Your task to perform on an android device: open chrome and create a bookmark for the current page Image 0: 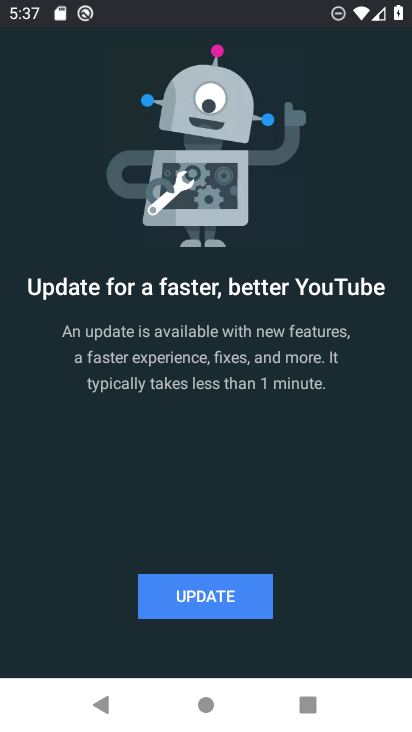
Step 0: press home button
Your task to perform on an android device: open chrome and create a bookmark for the current page Image 1: 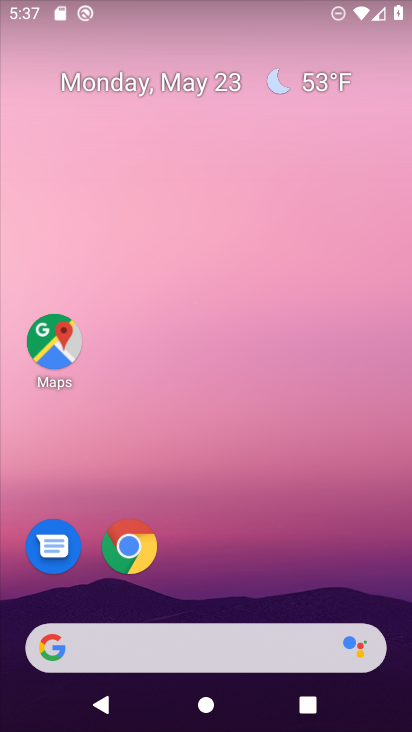
Step 1: click (122, 548)
Your task to perform on an android device: open chrome and create a bookmark for the current page Image 2: 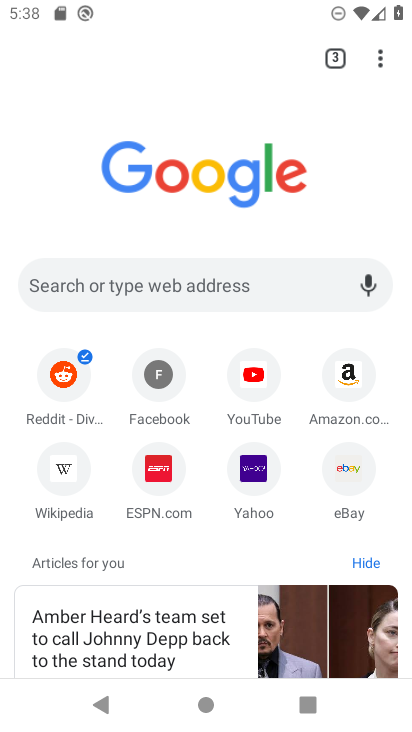
Step 2: click (394, 64)
Your task to perform on an android device: open chrome and create a bookmark for the current page Image 3: 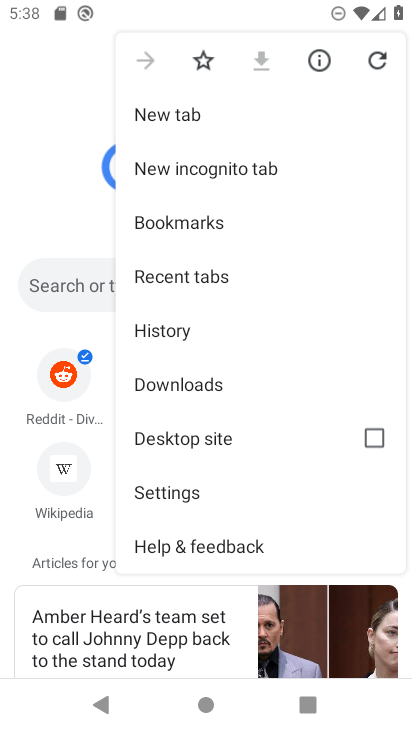
Step 3: click (204, 57)
Your task to perform on an android device: open chrome and create a bookmark for the current page Image 4: 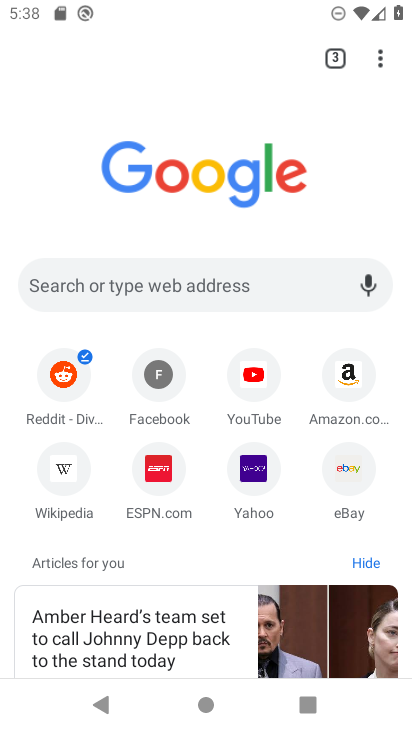
Step 4: task complete